Your task to perform on an android device: Go to CNN.com Image 0: 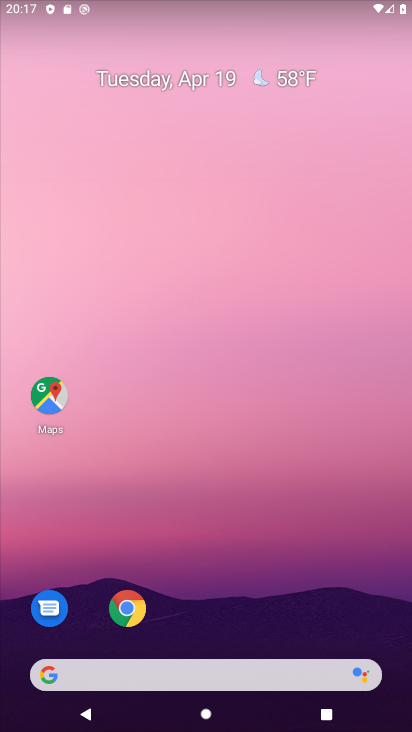
Step 0: click (127, 609)
Your task to perform on an android device: Go to CNN.com Image 1: 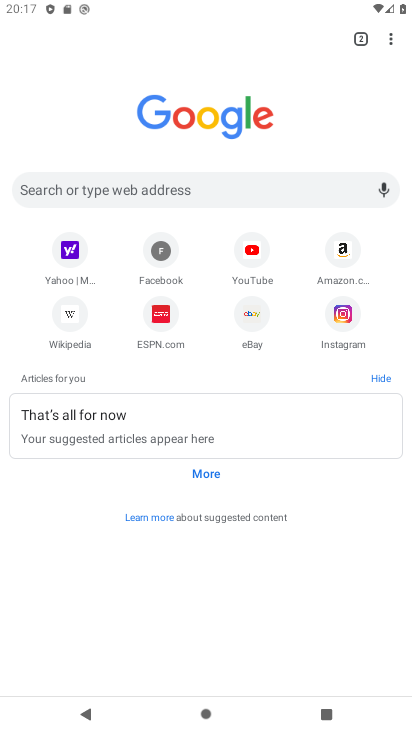
Step 1: click (243, 187)
Your task to perform on an android device: Go to CNN.com Image 2: 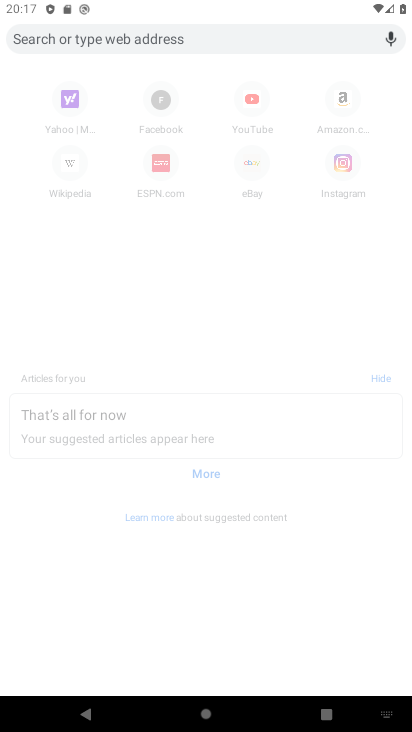
Step 2: type "CNN.com"
Your task to perform on an android device: Go to CNN.com Image 3: 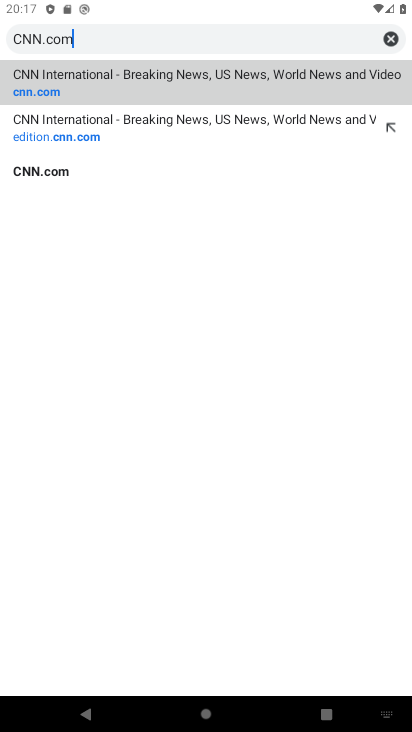
Step 3: type ""
Your task to perform on an android device: Go to CNN.com Image 4: 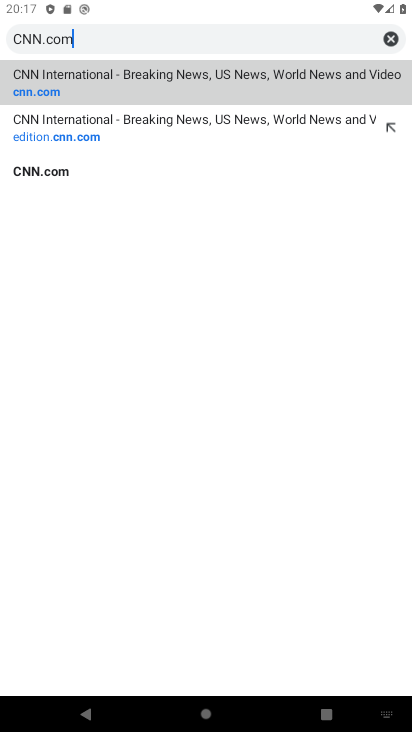
Step 4: click (140, 79)
Your task to perform on an android device: Go to CNN.com Image 5: 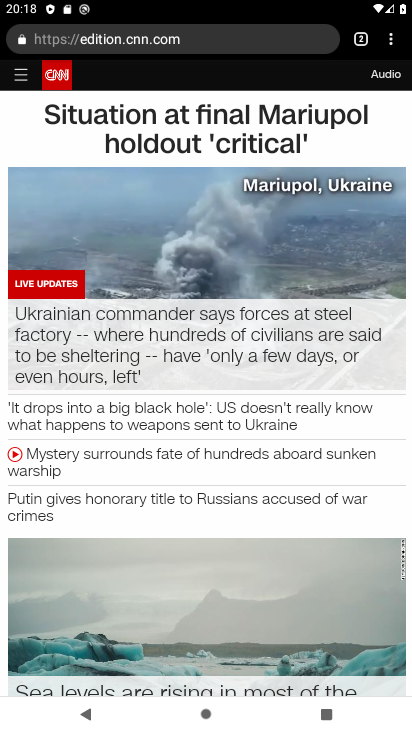
Step 5: task complete